Your task to perform on an android device: refresh tabs in the chrome app Image 0: 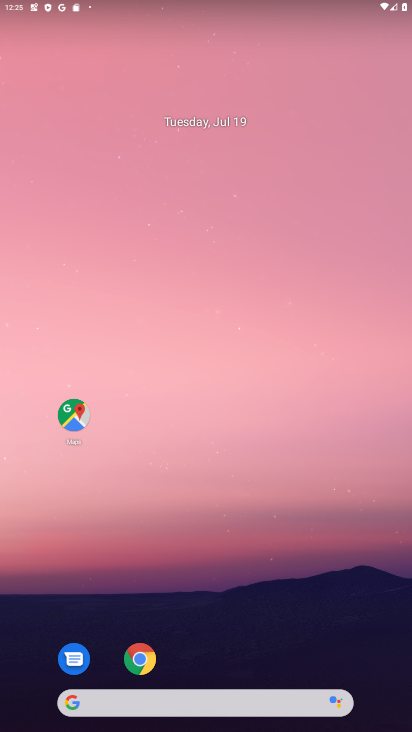
Step 0: click (141, 658)
Your task to perform on an android device: refresh tabs in the chrome app Image 1: 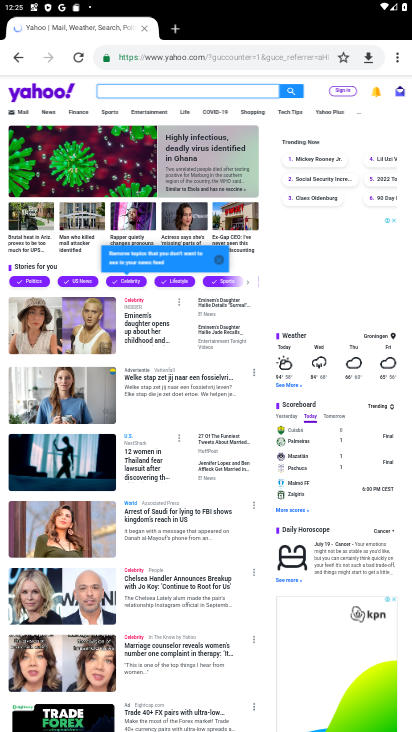
Step 1: click (78, 59)
Your task to perform on an android device: refresh tabs in the chrome app Image 2: 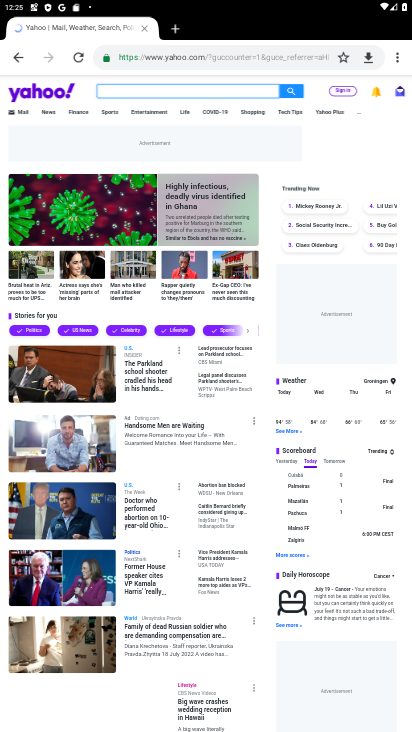
Step 2: task complete